Your task to perform on an android device: What's the news in theFalkland Islands? Image 0: 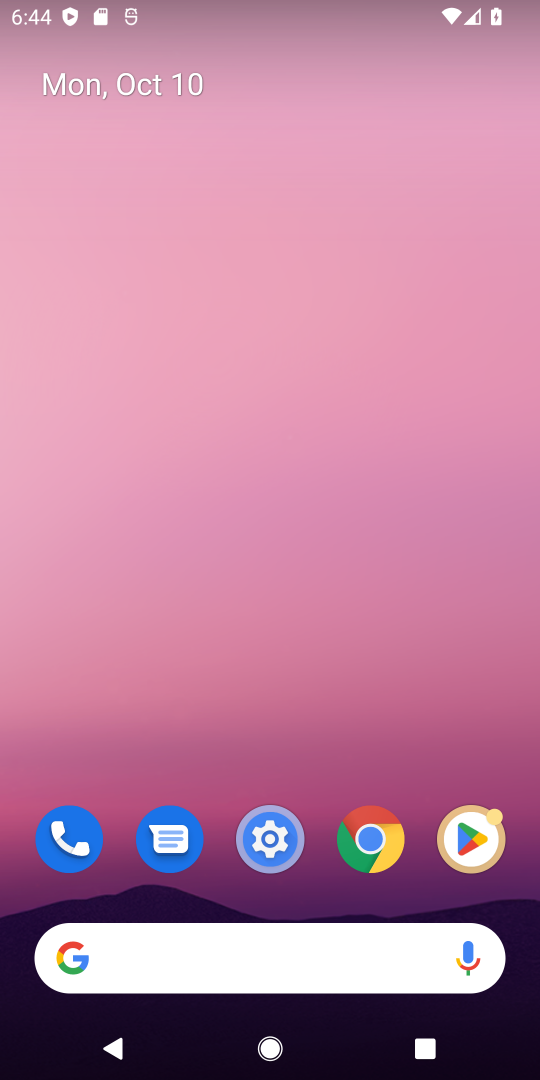
Step 0: click (229, 964)
Your task to perform on an android device: What's the news in theFalkland Islands? Image 1: 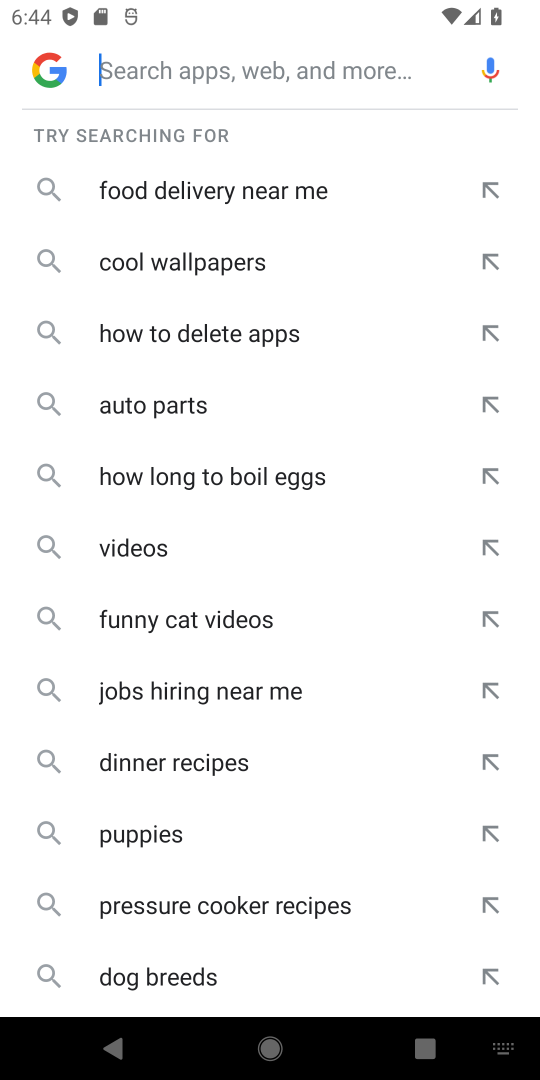
Step 1: type "What's the news in theFalkland Islands?"
Your task to perform on an android device: What's the news in theFalkland Islands? Image 2: 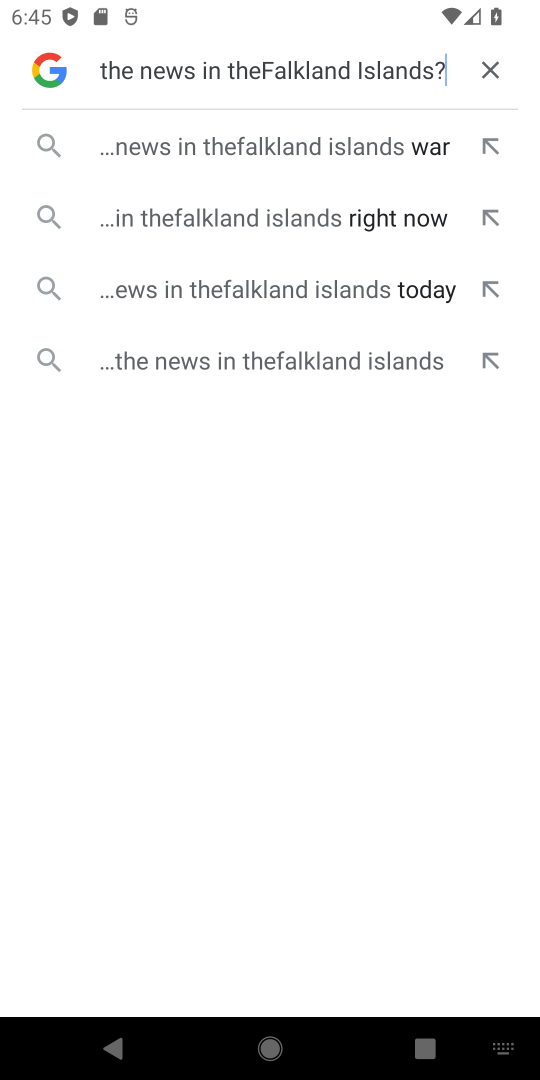
Step 2: click (255, 361)
Your task to perform on an android device: What's the news in theFalkland Islands? Image 3: 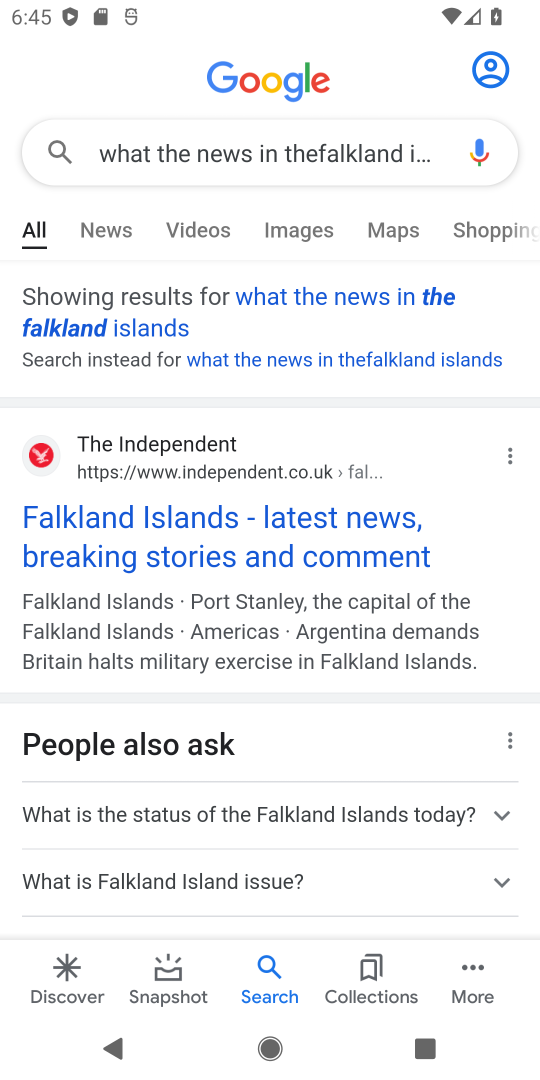
Step 3: click (232, 528)
Your task to perform on an android device: What's the news in theFalkland Islands? Image 4: 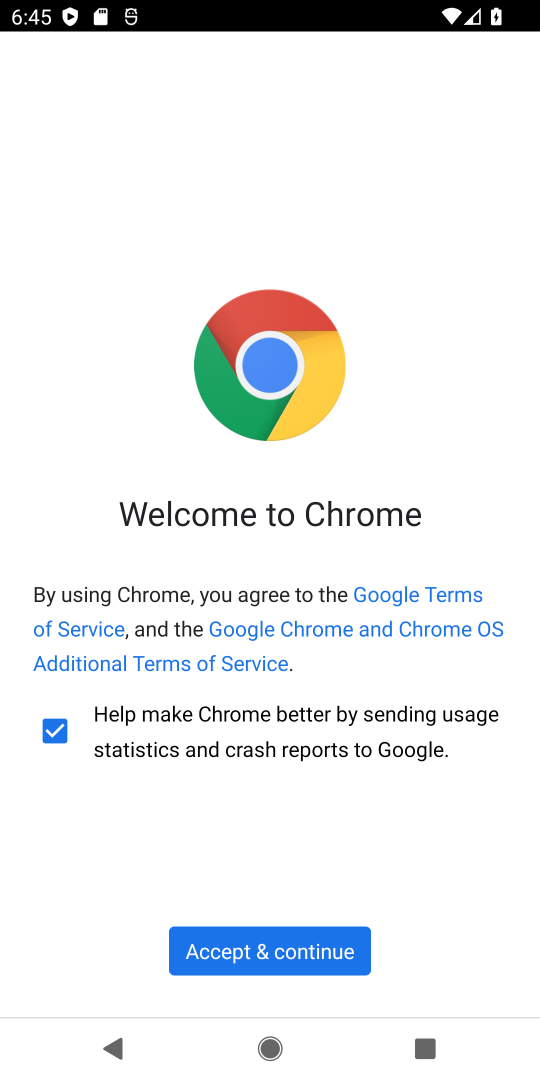
Step 4: click (310, 948)
Your task to perform on an android device: What's the news in theFalkland Islands? Image 5: 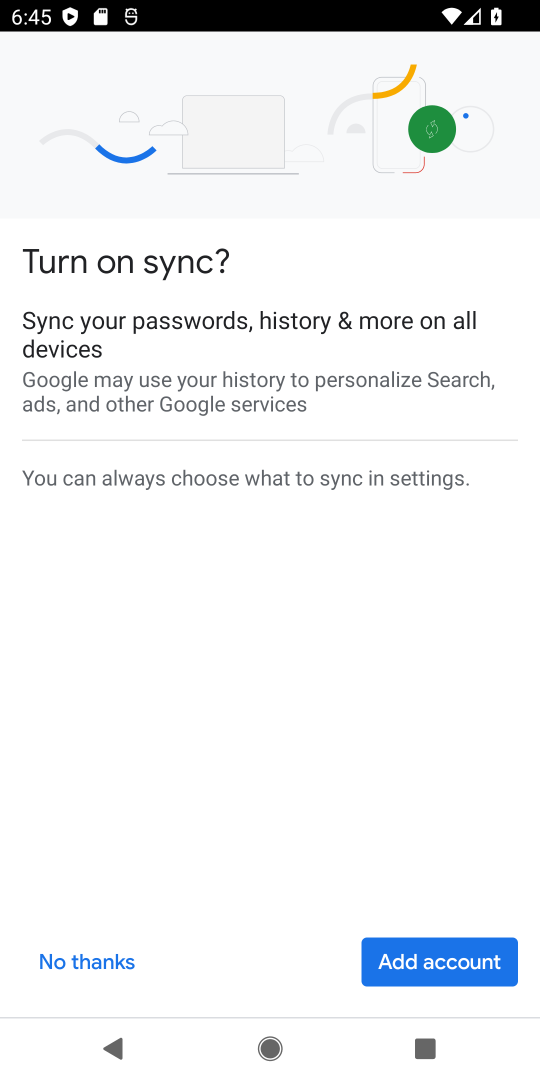
Step 5: click (84, 955)
Your task to perform on an android device: What's the news in theFalkland Islands? Image 6: 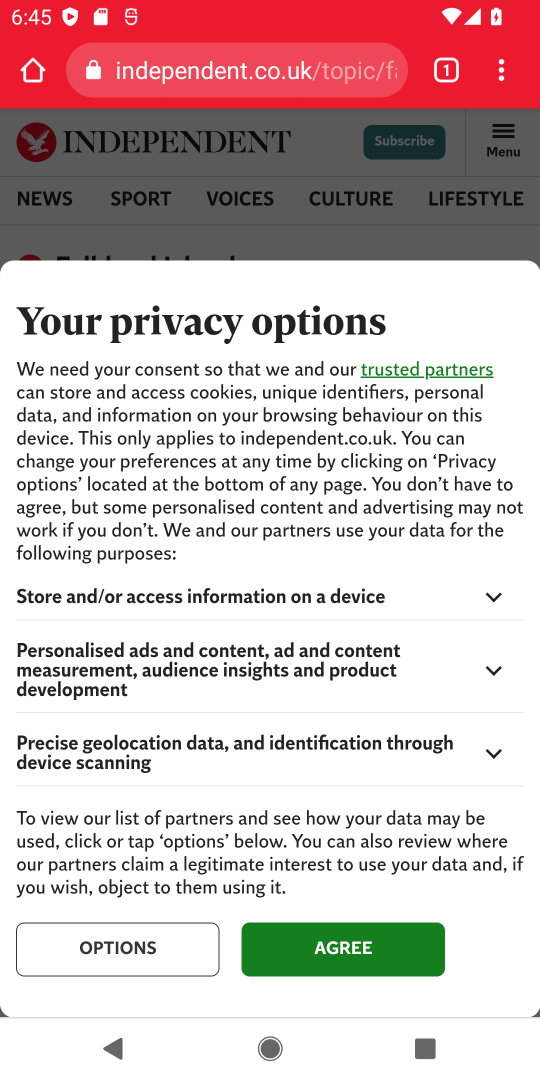
Step 6: click (287, 946)
Your task to perform on an android device: What's the news in theFalkland Islands? Image 7: 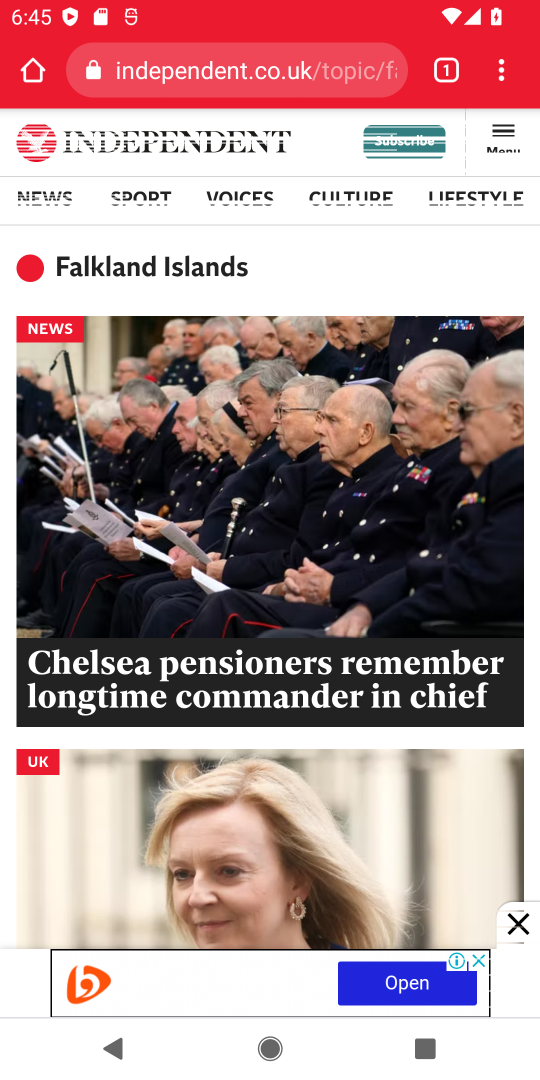
Step 7: task complete